Your task to perform on an android device: Open wifi settings Image 0: 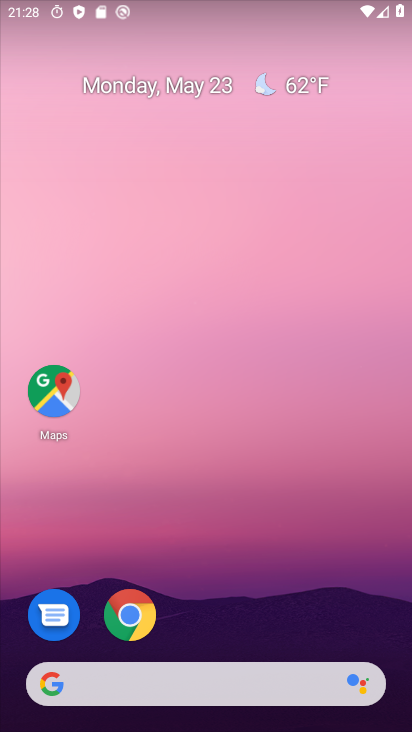
Step 0: drag from (203, 604) to (243, 96)
Your task to perform on an android device: Open wifi settings Image 1: 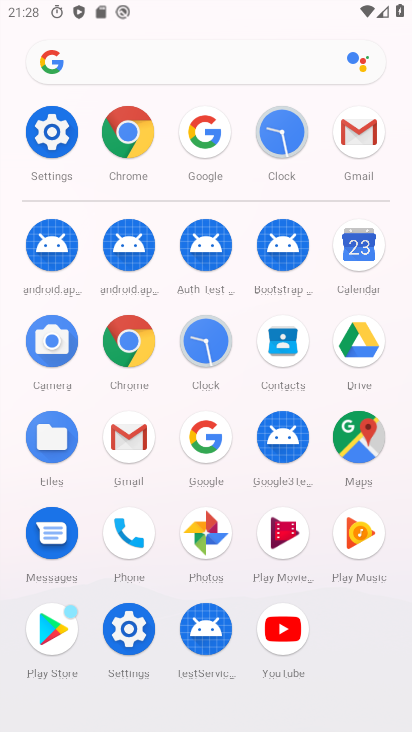
Step 1: click (53, 134)
Your task to perform on an android device: Open wifi settings Image 2: 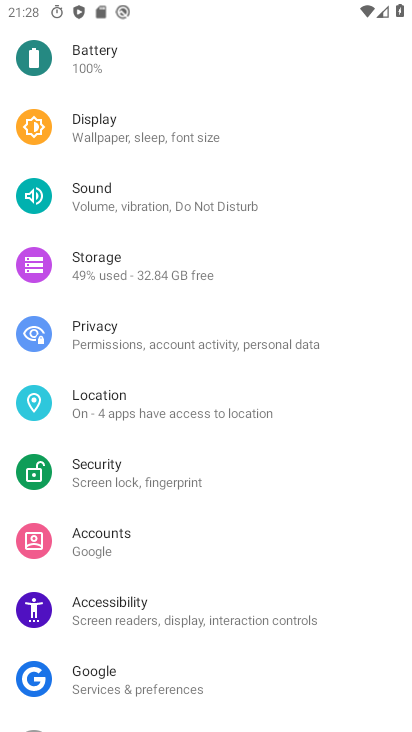
Step 2: drag from (171, 107) to (193, 557)
Your task to perform on an android device: Open wifi settings Image 3: 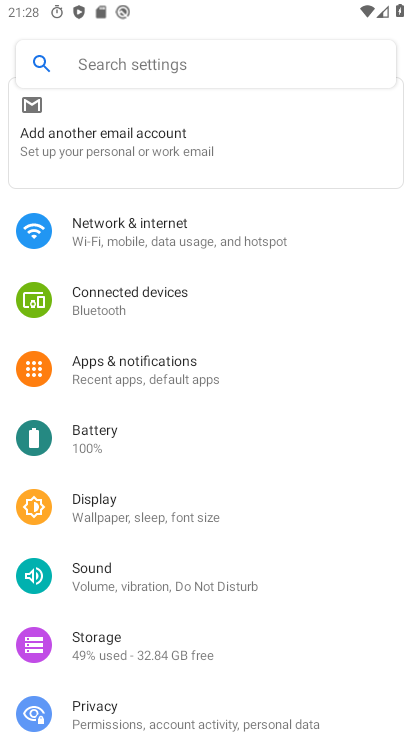
Step 3: click (159, 241)
Your task to perform on an android device: Open wifi settings Image 4: 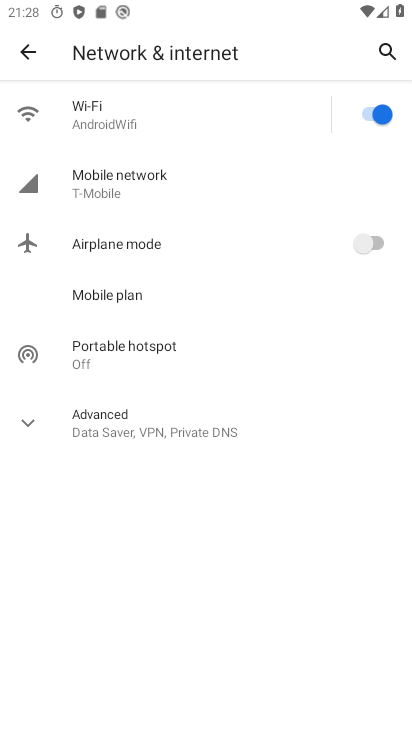
Step 4: click (149, 117)
Your task to perform on an android device: Open wifi settings Image 5: 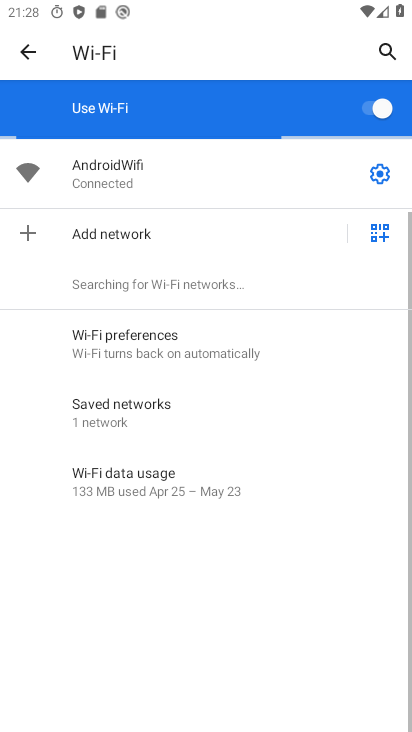
Step 5: click (316, 169)
Your task to perform on an android device: Open wifi settings Image 6: 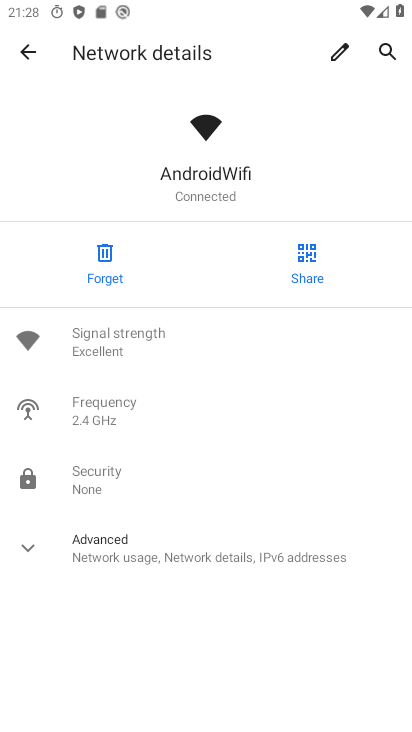
Step 6: task complete